Your task to perform on an android device: change timer sound Image 0: 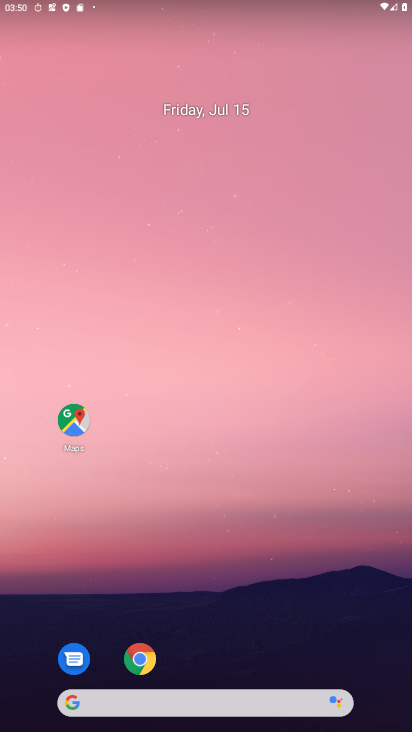
Step 0: drag from (267, 641) to (278, 274)
Your task to perform on an android device: change timer sound Image 1: 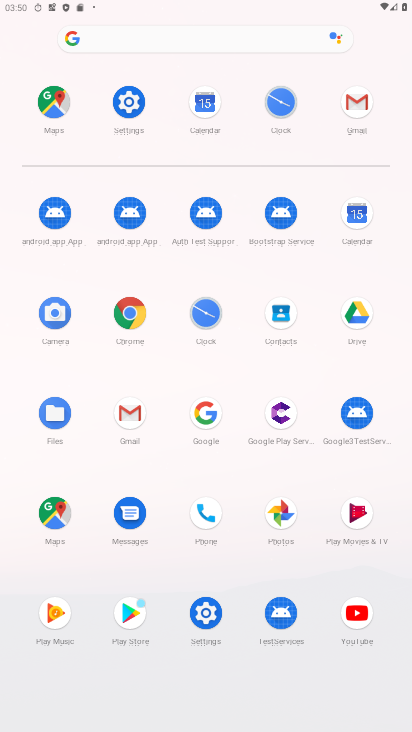
Step 1: click (203, 319)
Your task to perform on an android device: change timer sound Image 2: 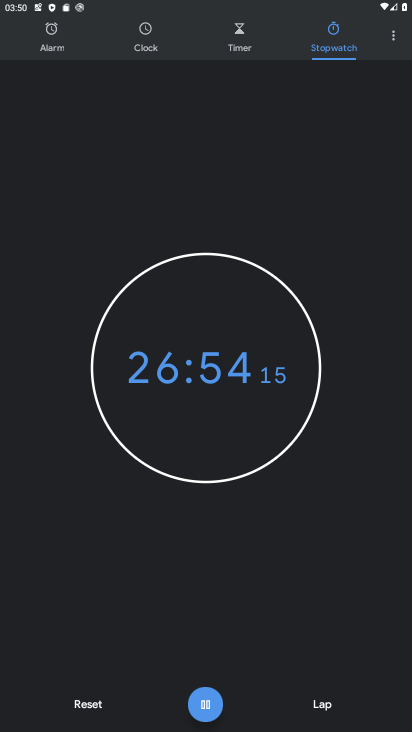
Step 2: click (391, 35)
Your task to perform on an android device: change timer sound Image 3: 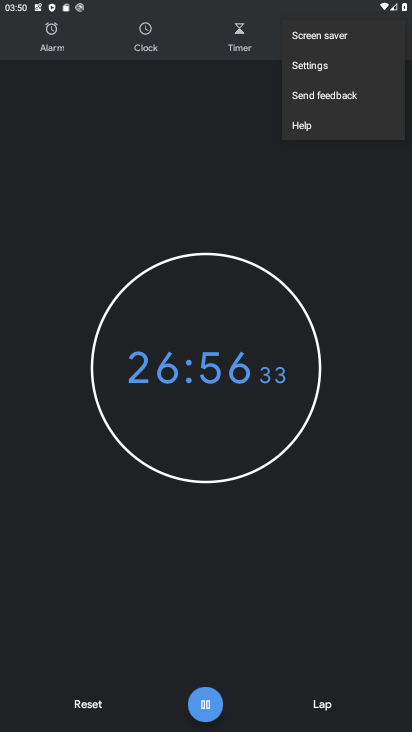
Step 3: click (319, 67)
Your task to perform on an android device: change timer sound Image 4: 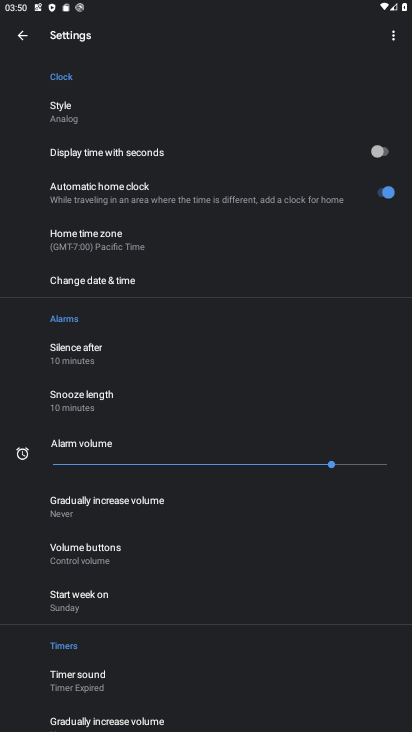
Step 4: click (102, 674)
Your task to perform on an android device: change timer sound Image 5: 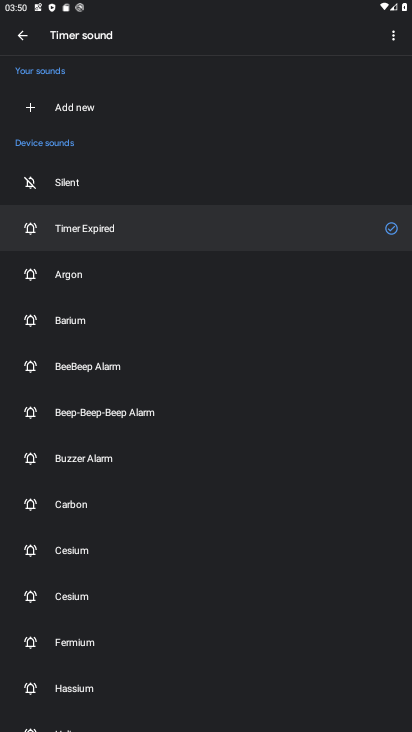
Step 5: click (69, 274)
Your task to perform on an android device: change timer sound Image 6: 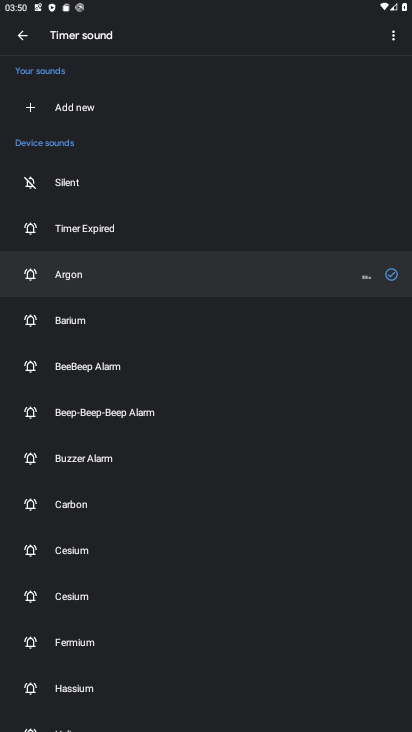
Step 6: task complete